Your task to perform on an android device: turn on location history Image 0: 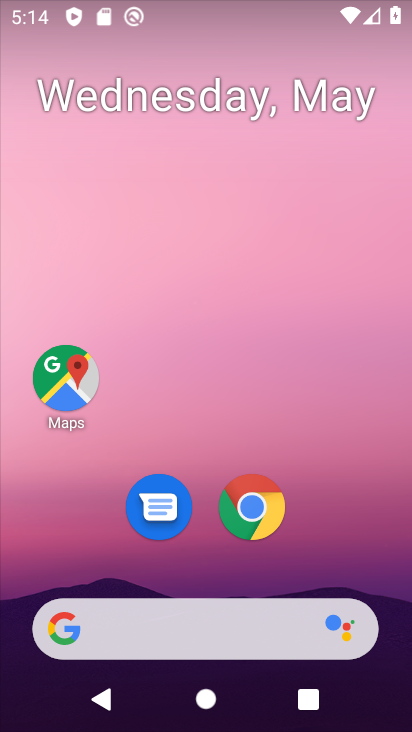
Step 0: drag from (338, 559) to (247, 112)
Your task to perform on an android device: turn on location history Image 1: 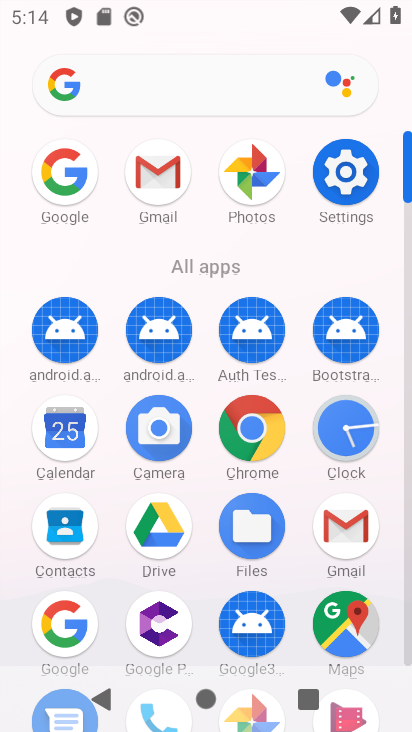
Step 1: click (346, 172)
Your task to perform on an android device: turn on location history Image 2: 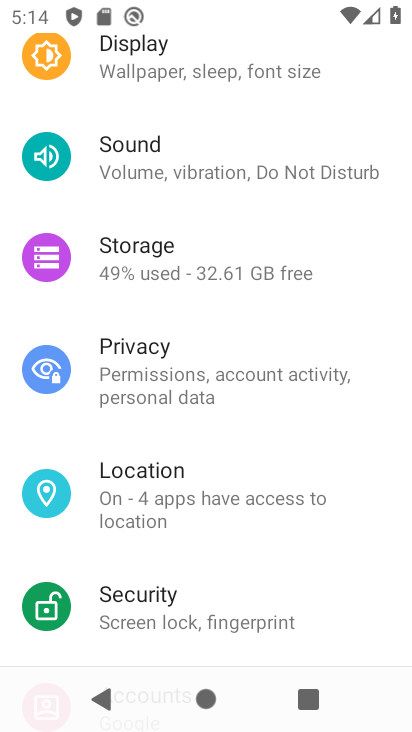
Step 2: click (147, 514)
Your task to perform on an android device: turn on location history Image 3: 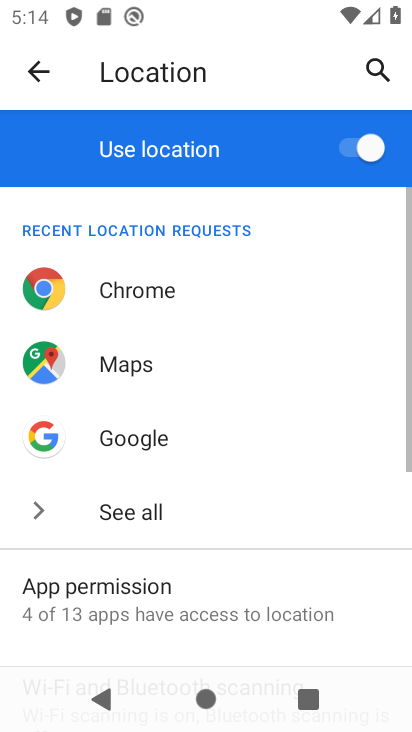
Step 3: drag from (212, 623) to (321, 288)
Your task to perform on an android device: turn on location history Image 4: 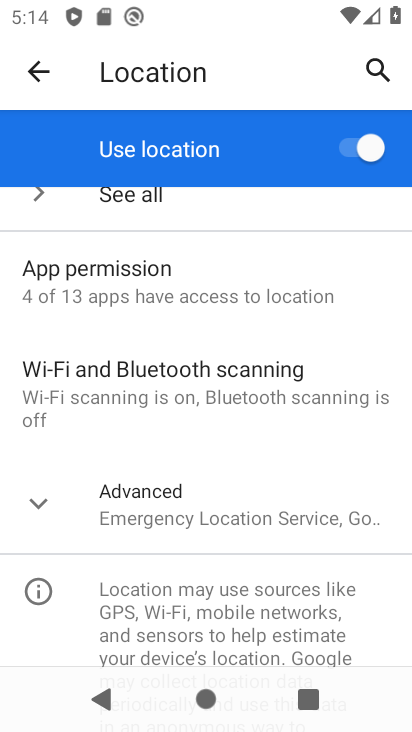
Step 4: click (171, 505)
Your task to perform on an android device: turn on location history Image 5: 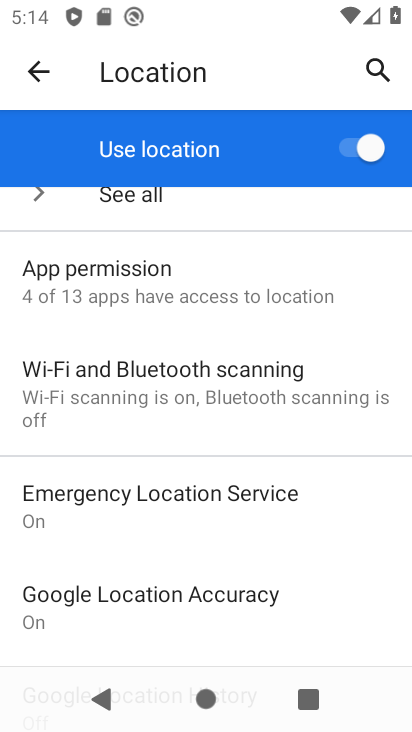
Step 5: drag from (148, 550) to (245, 354)
Your task to perform on an android device: turn on location history Image 6: 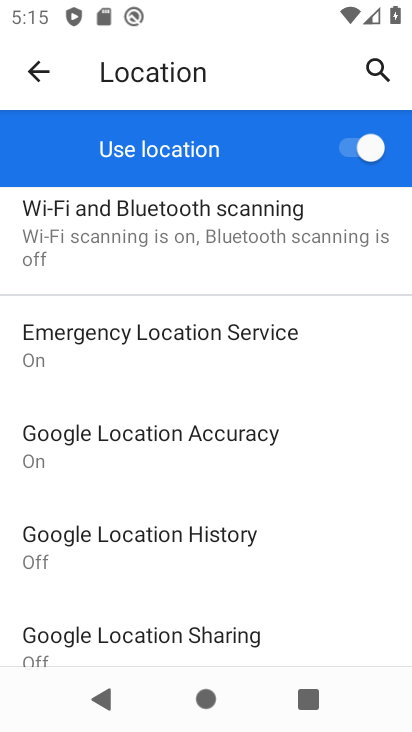
Step 6: click (122, 539)
Your task to perform on an android device: turn on location history Image 7: 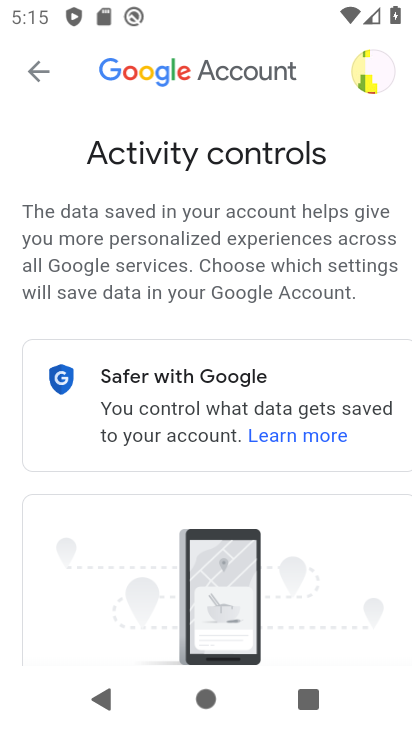
Step 7: drag from (112, 559) to (169, 382)
Your task to perform on an android device: turn on location history Image 8: 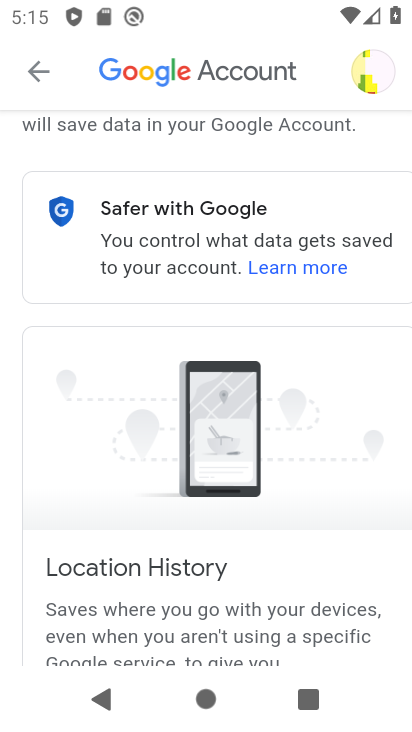
Step 8: drag from (142, 595) to (222, 363)
Your task to perform on an android device: turn on location history Image 9: 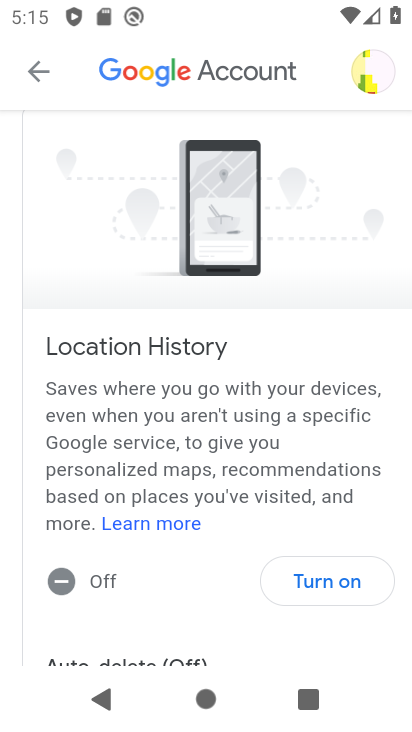
Step 9: click (328, 582)
Your task to perform on an android device: turn on location history Image 10: 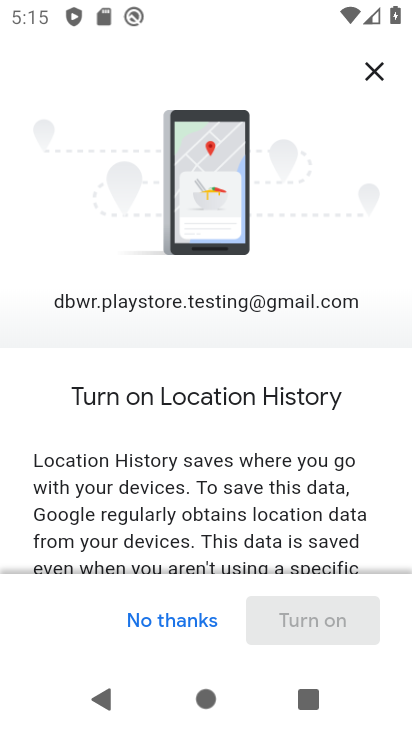
Step 10: drag from (264, 531) to (323, 259)
Your task to perform on an android device: turn on location history Image 11: 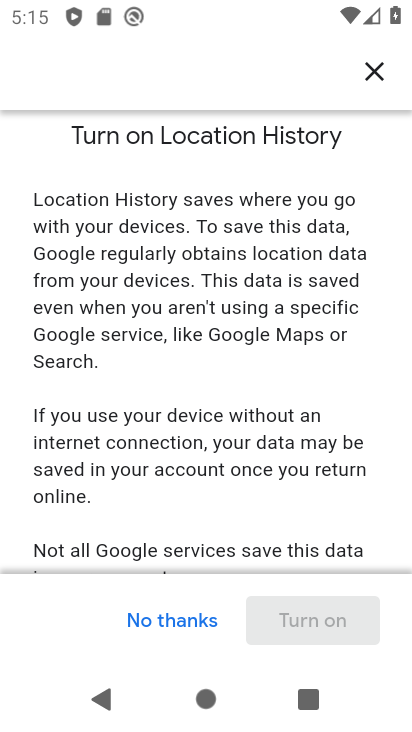
Step 11: drag from (219, 493) to (304, 228)
Your task to perform on an android device: turn on location history Image 12: 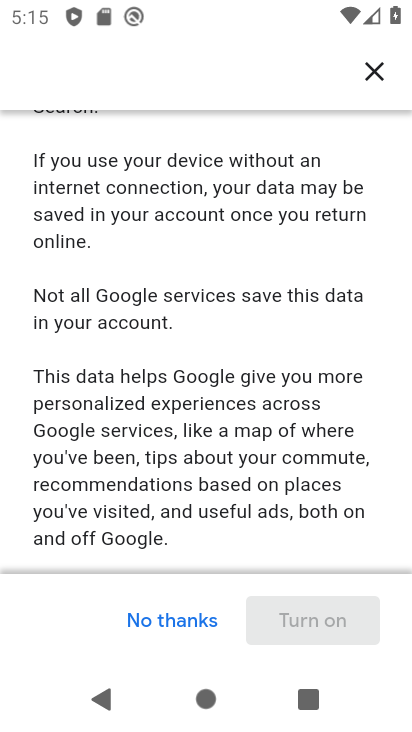
Step 12: drag from (225, 531) to (320, 323)
Your task to perform on an android device: turn on location history Image 13: 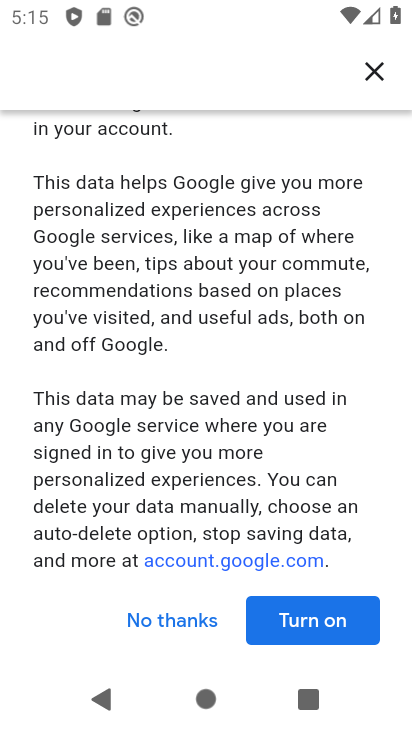
Step 13: click (307, 621)
Your task to perform on an android device: turn on location history Image 14: 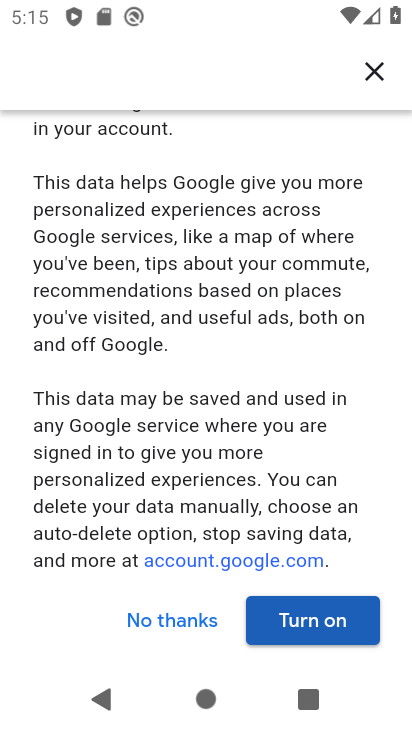
Step 14: click (307, 621)
Your task to perform on an android device: turn on location history Image 15: 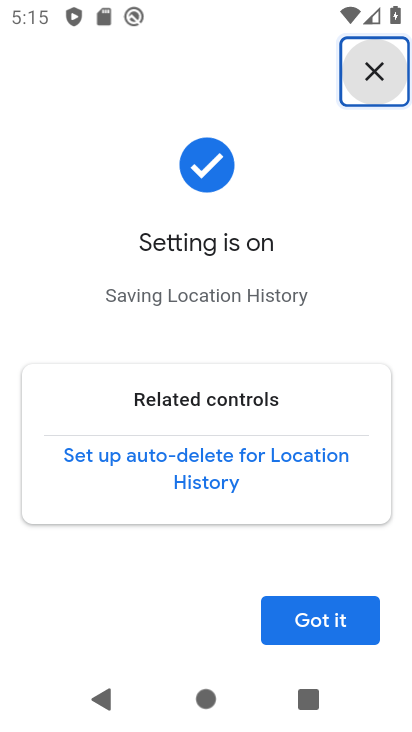
Step 15: click (313, 617)
Your task to perform on an android device: turn on location history Image 16: 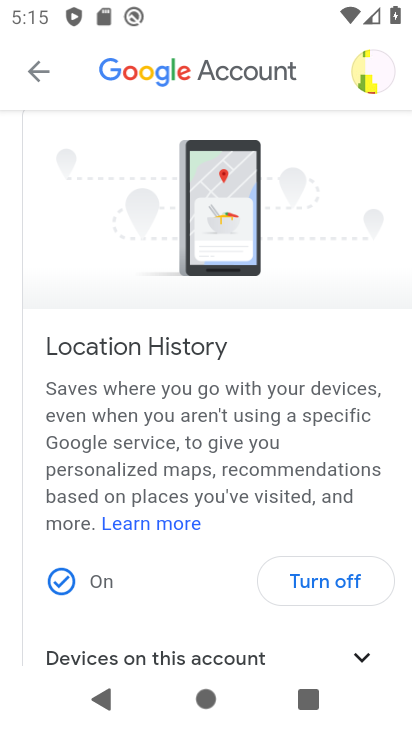
Step 16: task complete